Your task to perform on an android device: Open battery settings Image 0: 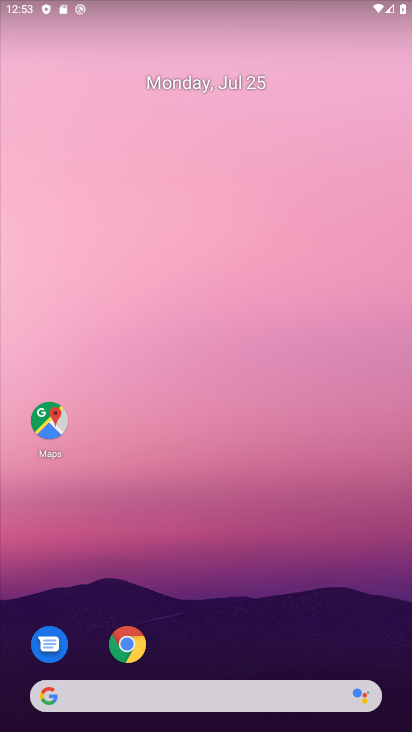
Step 0: drag from (299, 613) to (252, 83)
Your task to perform on an android device: Open battery settings Image 1: 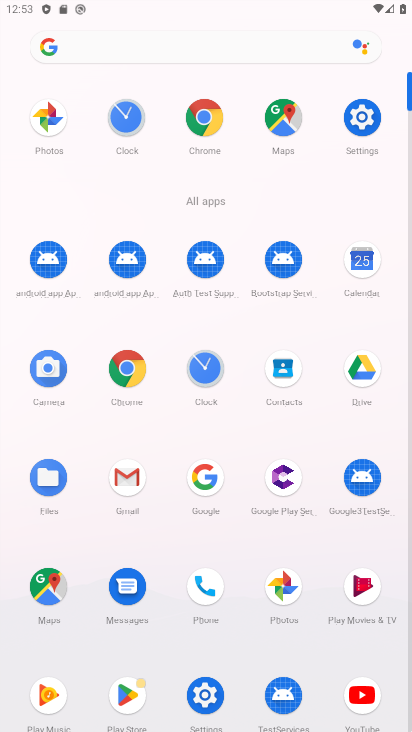
Step 1: click (359, 110)
Your task to perform on an android device: Open battery settings Image 2: 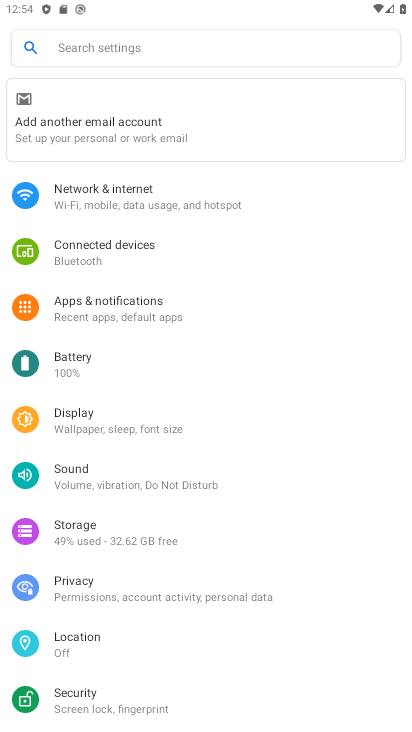
Step 2: click (107, 370)
Your task to perform on an android device: Open battery settings Image 3: 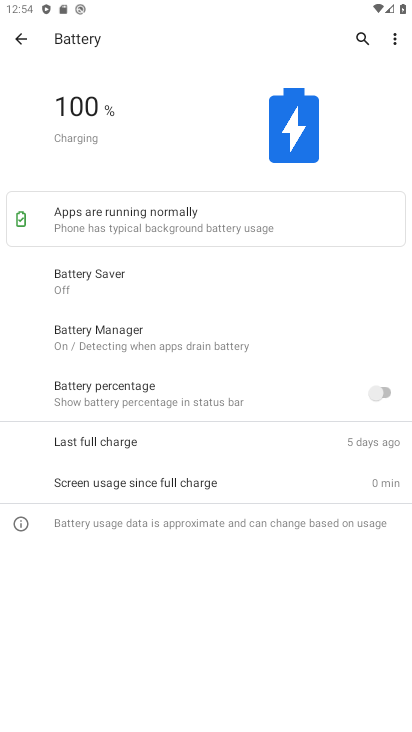
Step 3: task complete